Your task to perform on an android device: turn off picture-in-picture Image 0: 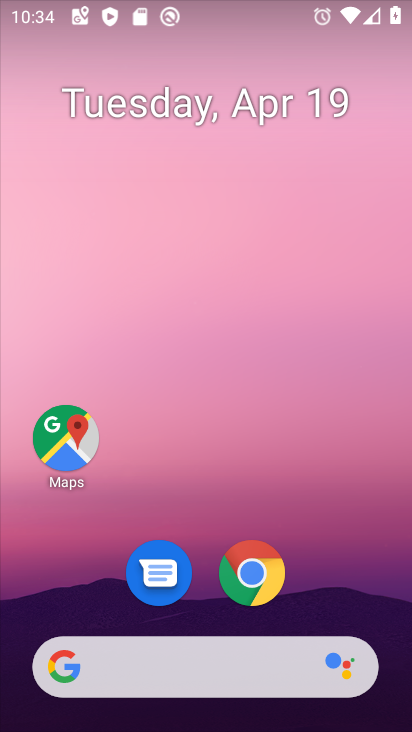
Step 0: drag from (343, 495) to (320, 104)
Your task to perform on an android device: turn off picture-in-picture Image 1: 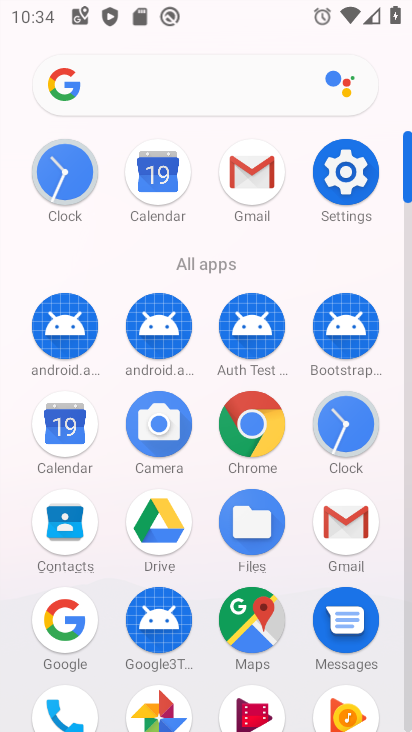
Step 1: click (354, 184)
Your task to perform on an android device: turn off picture-in-picture Image 2: 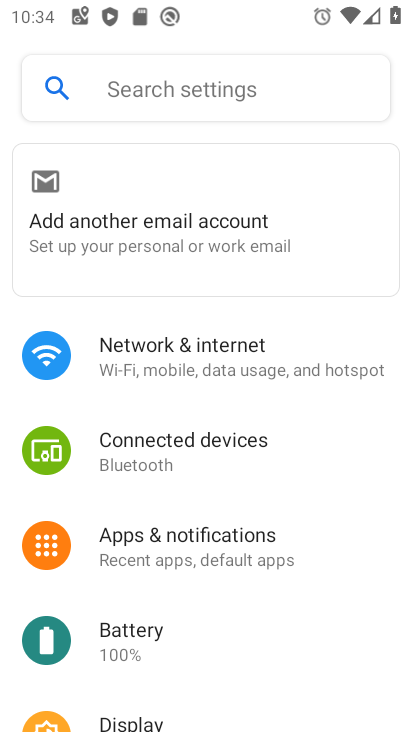
Step 2: click (217, 544)
Your task to perform on an android device: turn off picture-in-picture Image 3: 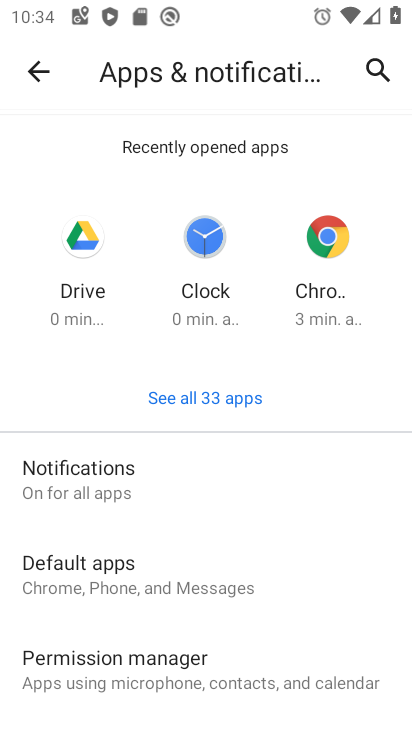
Step 3: drag from (125, 652) to (152, 226)
Your task to perform on an android device: turn off picture-in-picture Image 4: 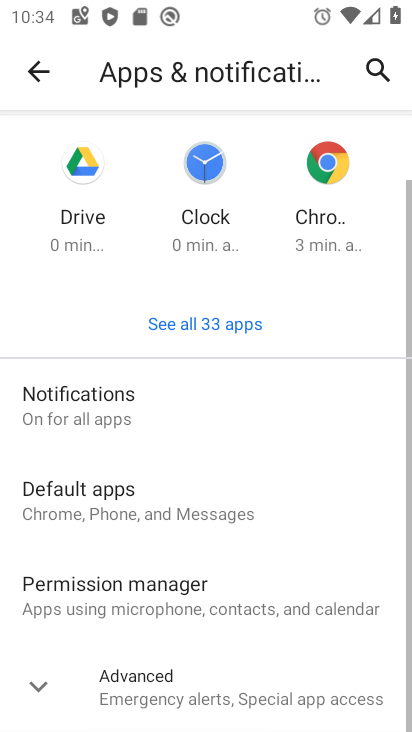
Step 4: click (154, 693)
Your task to perform on an android device: turn off picture-in-picture Image 5: 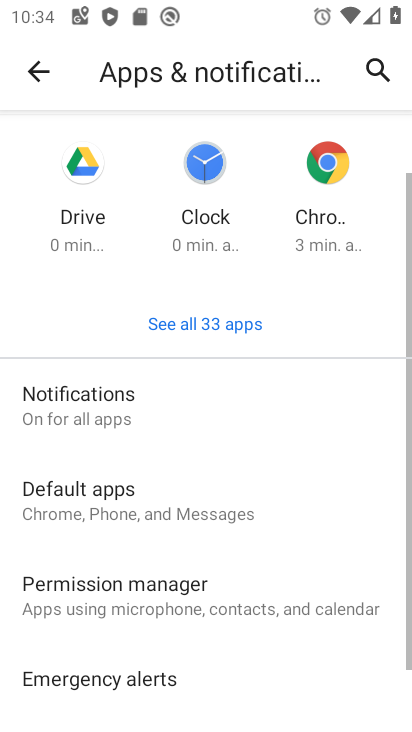
Step 5: drag from (154, 693) to (127, 291)
Your task to perform on an android device: turn off picture-in-picture Image 6: 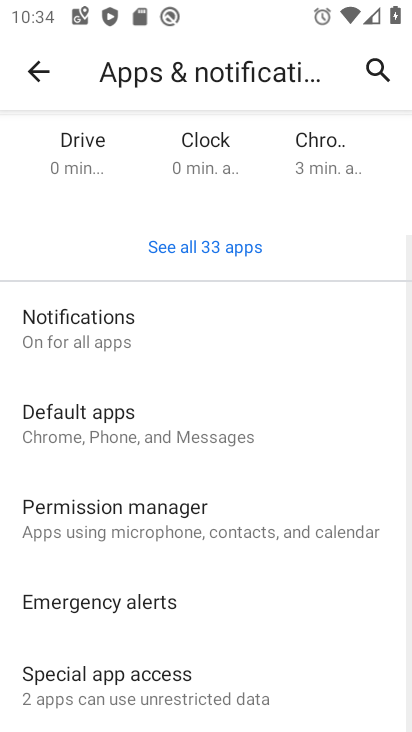
Step 6: click (151, 683)
Your task to perform on an android device: turn off picture-in-picture Image 7: 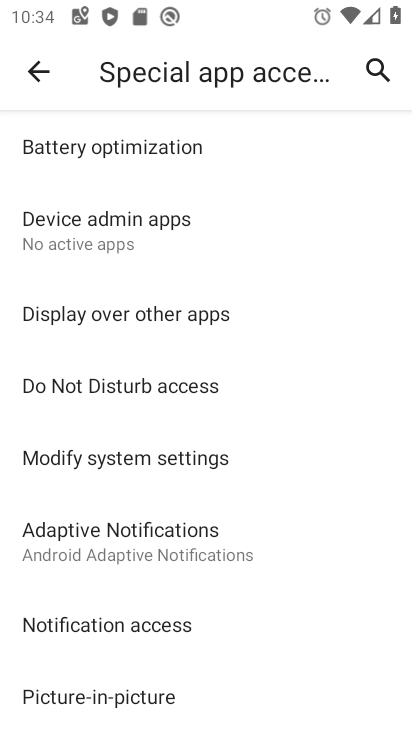
Step 7: click (113, 697)
Your task to perform on an android device: turn off picture-in-picture Image 8: 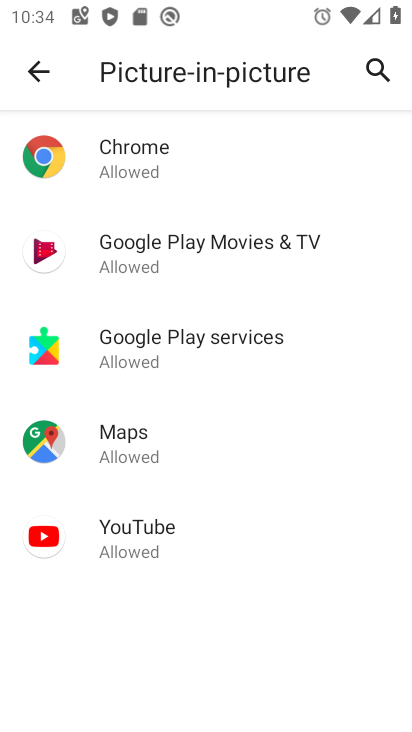
Step 8: click (132, 168)
Your task to perform on an android device: turn off picture-in-picture Image 9: 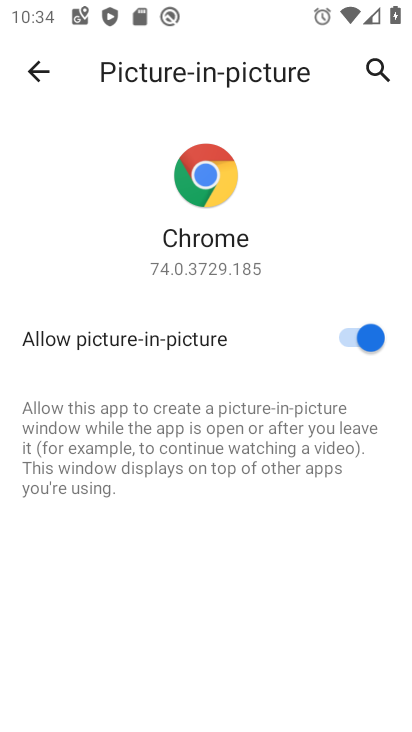
Step 9: click (370, 339)
Your task to perform on an android device: turn off picture-in-picture Image 10: 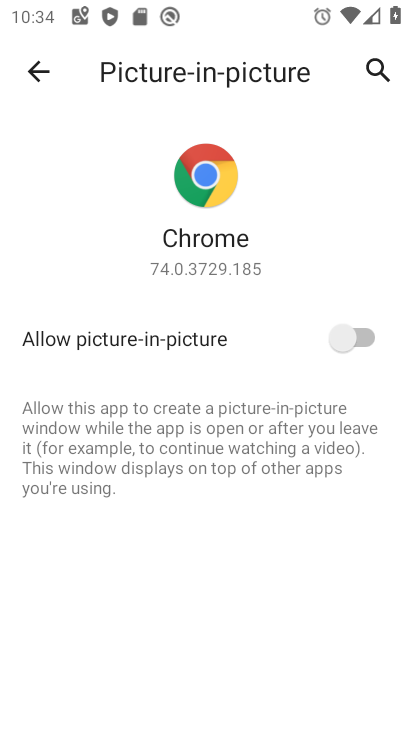
Step 10: task complete